Your task to perform on an android device: stop showing notifications on the lock screen Image 0: 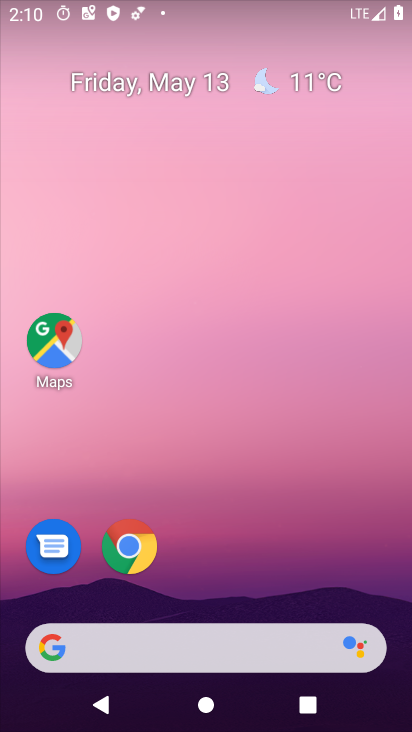
Step 0: drag from (197, 635) to (291, 206)
Your task to perform on an android device: stop showing notifications on the lock screen Image 1: 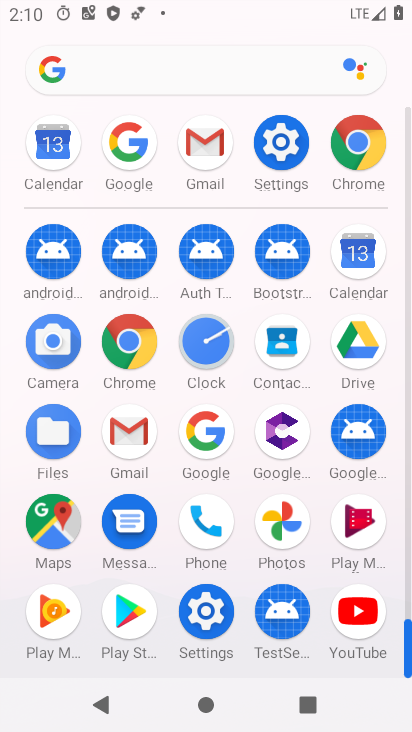
Step 1: click (296, 166)
Your task to perform on an android device: stop showing notifications on the lock screen Image 2: 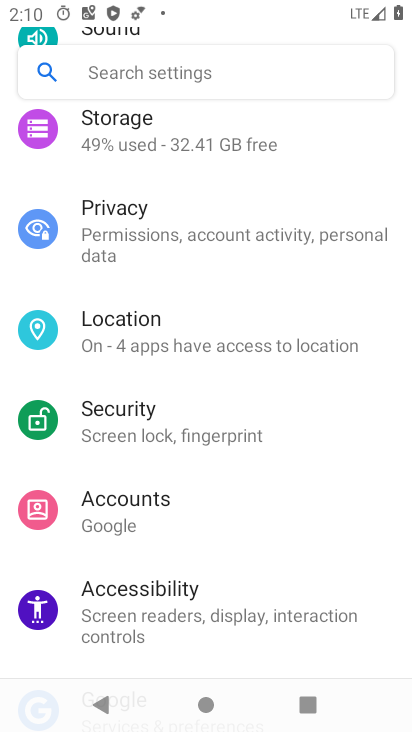
Step 2: drag from (232, 340) to (205, 595)
Your task to perform on an android device: stop showing notifications on the lock screen Image 3: 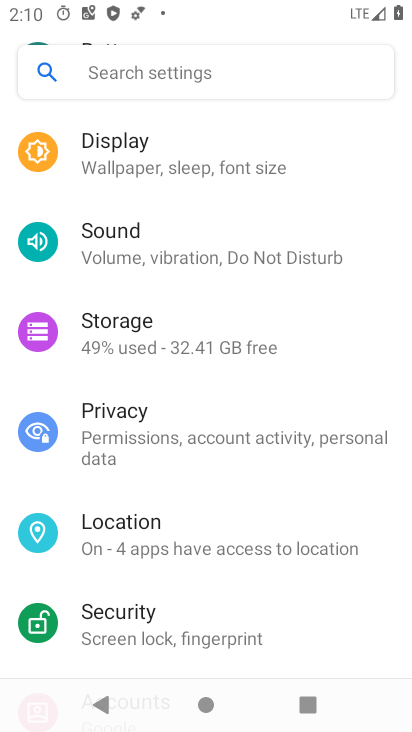
Step 3: drag from (221, 380) to (200, 611)
Your task to perform on an android device: stop showing notifications on the lock screen Image 4: 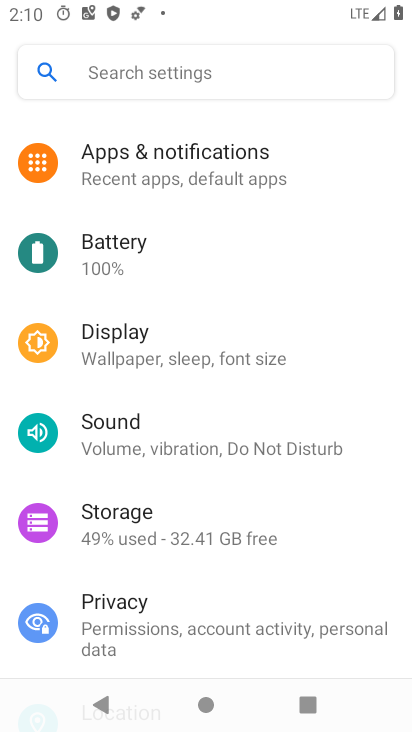
Step 4: click (212, 181)
Your task to perform on an android device: stop showing notifications on the lock screen Image 5: 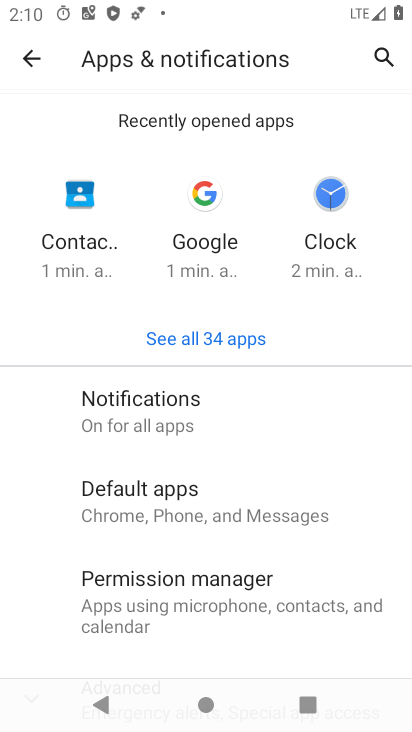
Step 5: drag from (215, 538) to (262, 307)
Your task to perform on an android device: stop showing notifications on the lock screen Image 6: 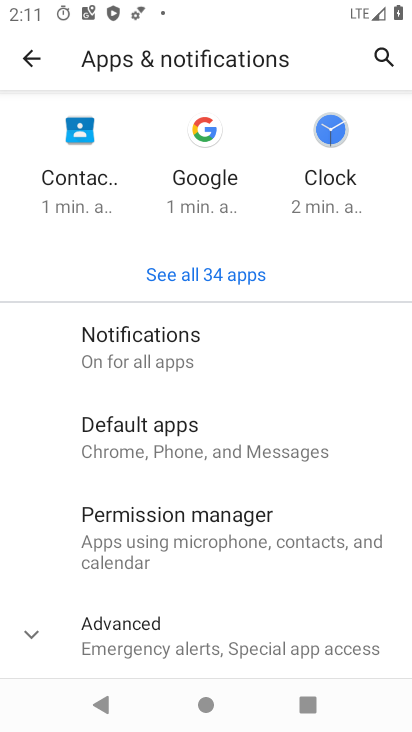
Step 6: click (209, 353)
Your task to perform on an android device: stop showing notifications on the lock screen Image 7: 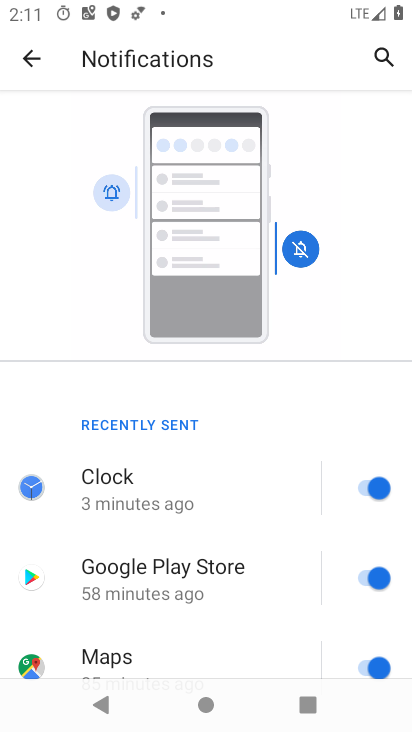
Step 7: drag from (191, 605) to (241, 101)
Your task to perform on an android device: stop showing notifications on the lock screen Image 8: 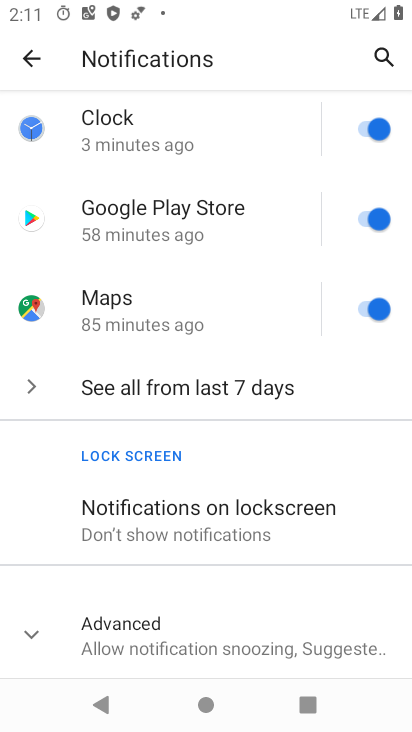
Step 8: click (173, 529)
Your task to perform on an android device: stop showing notifications on the lock screen Image 9: 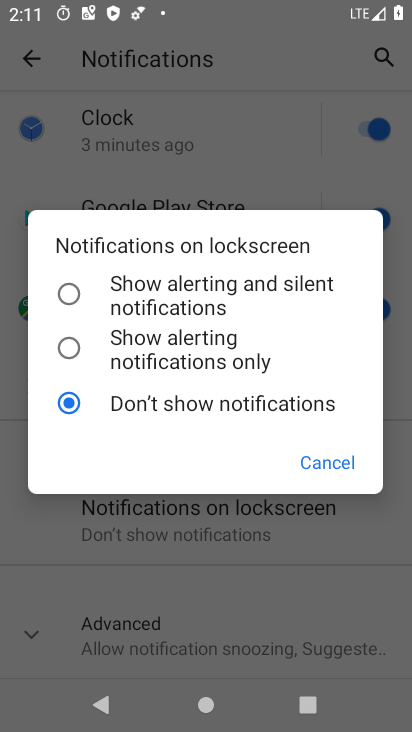
Step 9: task complete